Your task to perform on an android device: Open the stopwatch Image 0: 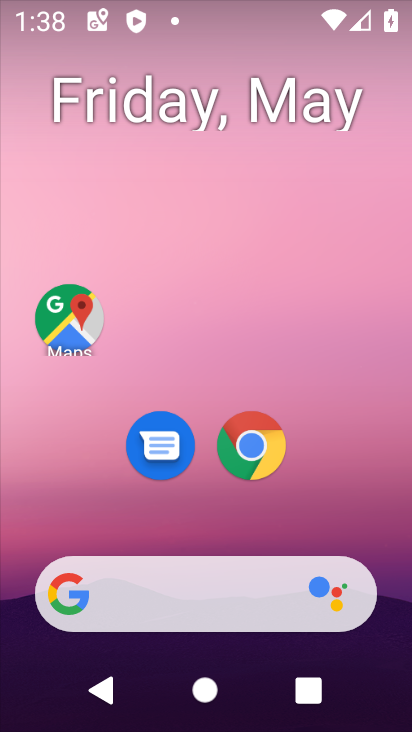
Step 0: drag from (402, 596) to (314, 42)
Your task to perform on an android device: Open the stopwatch Image 1: 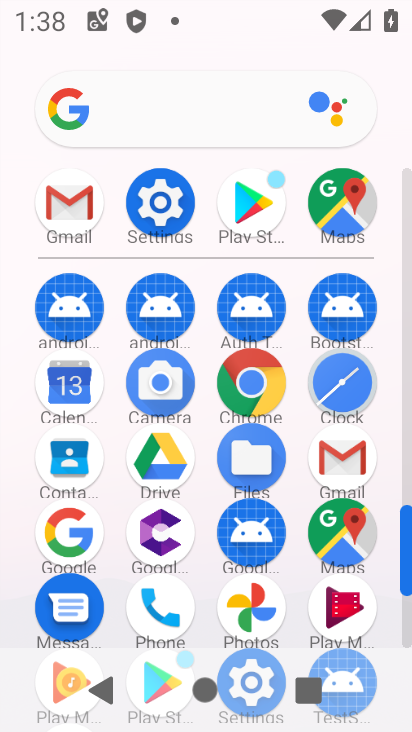
Step 1: click (409, 635)
Your task to perform on an android device: Open the stopwatch Image 2: 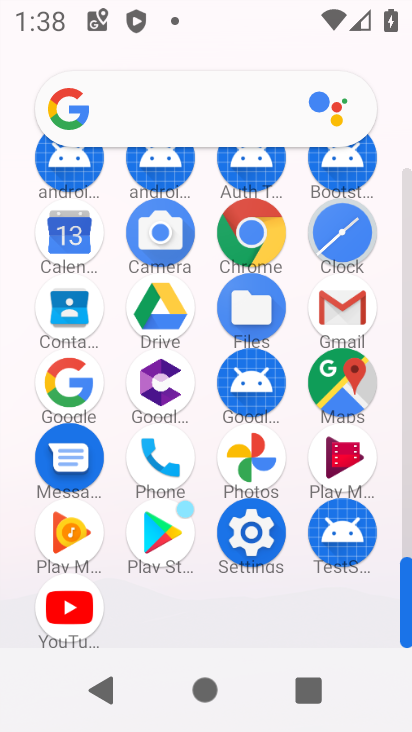
Step 2: click (345, 228)
Your task to perform on an android device: Open the stopwatch Image 3: 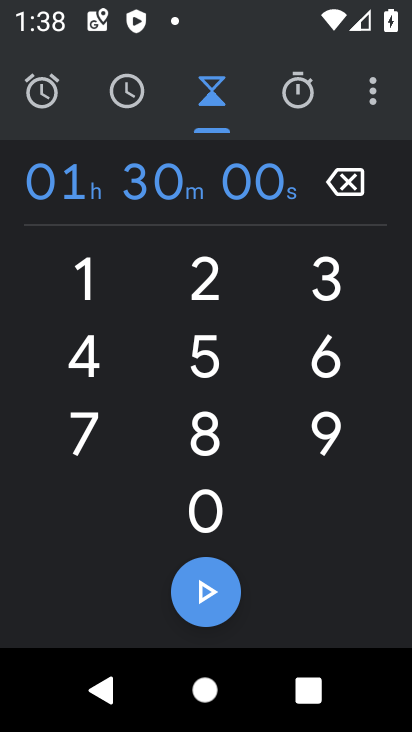
Step 3: click (299, 90)
Your task to perform on an android device: Open the stopwatch Image 4: 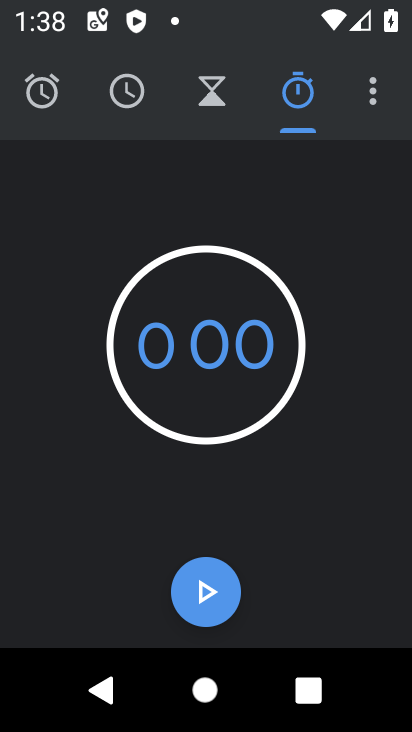
Step 4: task complete